Your task to perform on an android device: turn off location history Image 0: 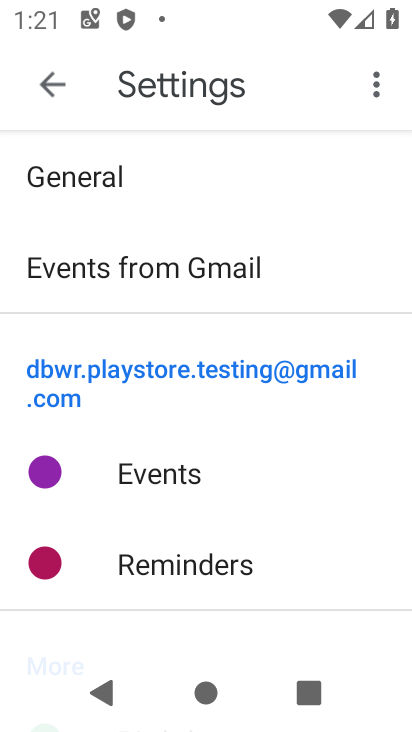
Step 0: press home button
Your task to perform on an android device: turn off location history Image 1: 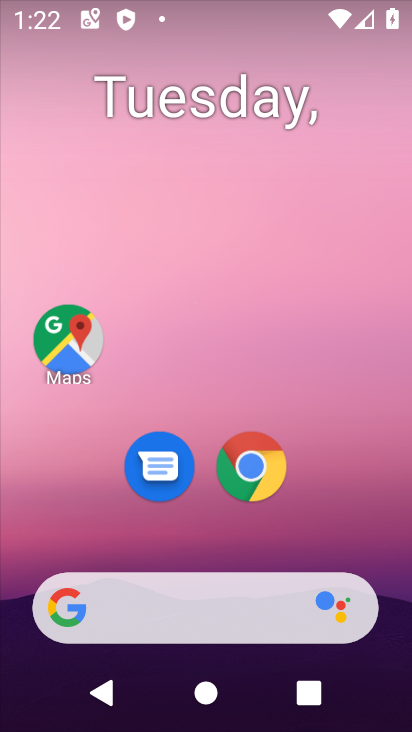
Step 1: click (93, 334)
Your task to perform on an android device: turn off location history Image 2: 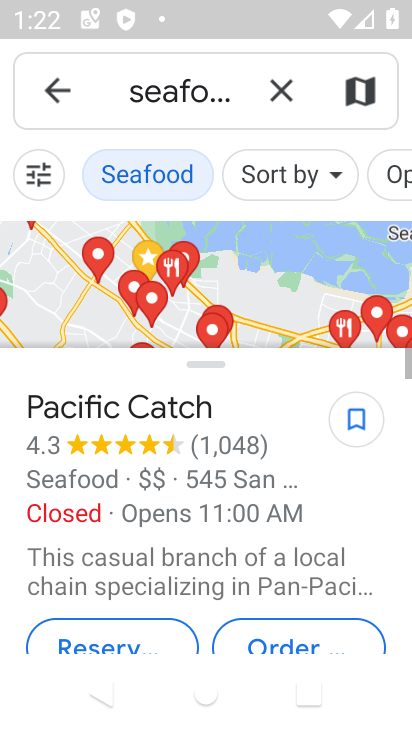
Step 2: click (34, 114)
Your task to perform on an android device: turn off location history Image 3: 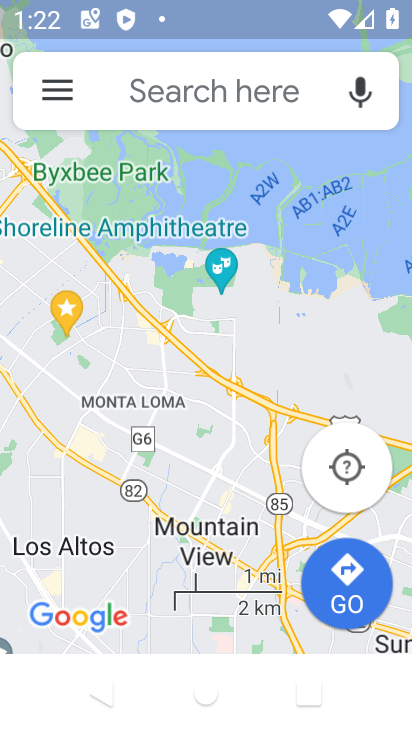
Step 3: click (35, 99)
Your task to perform on an android device: turn off location history Image 4: 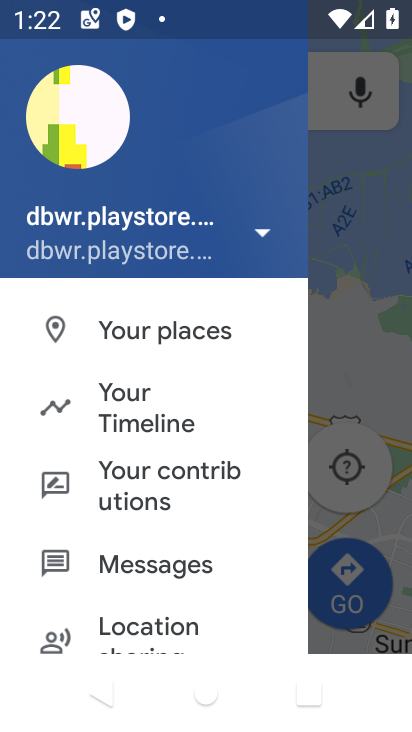
Step 4: drag from (191, 553) to (93, 234)
Your task to perform on an android device: turn off location history Image 5: 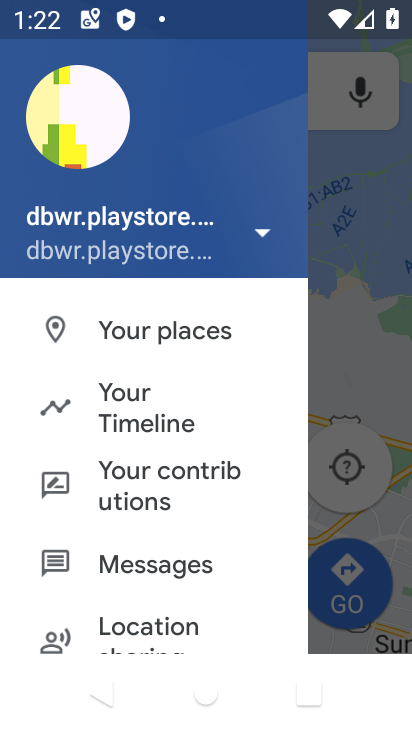
Step 5: drag from (128, 605) to (134, 327)
Your task to perform on an android device: turn off location history Image 6: 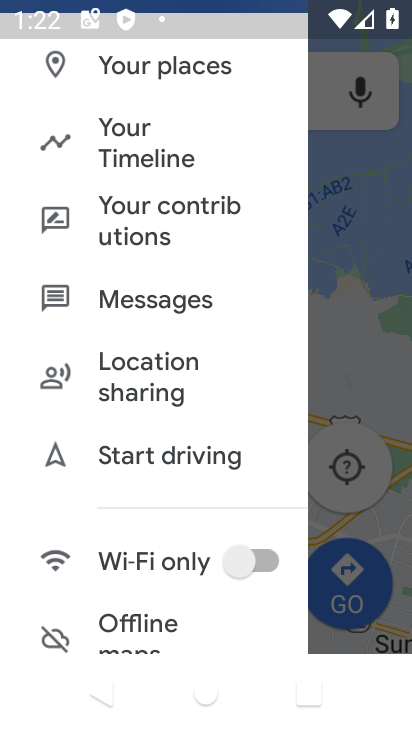
Step 6: click (120, 134)
Your task to perform on an android device: turn off location history Image 7: 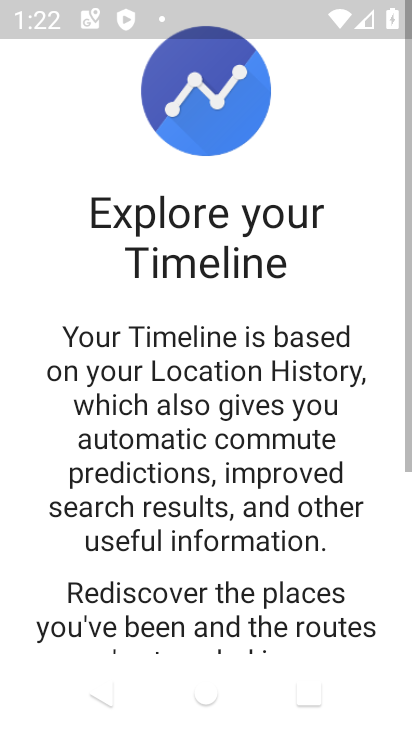
Step 7: drag from (235, 521) to (208, 35)
Your task to perform on an android device: turn off location history Image 8: 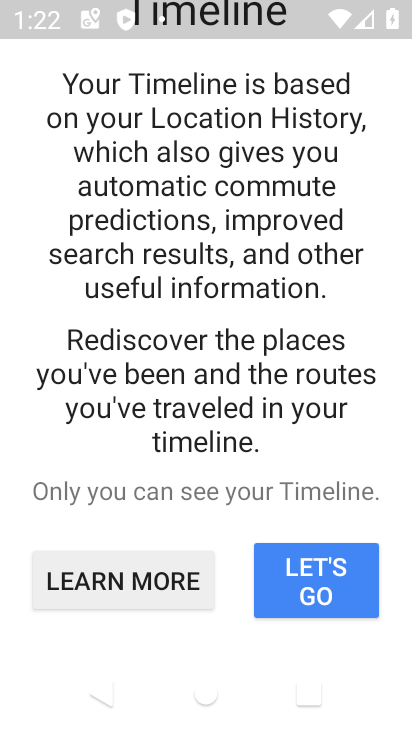
Step 8: click (320, 575)
Your task to perform on an android device: turn off location history Image 9: 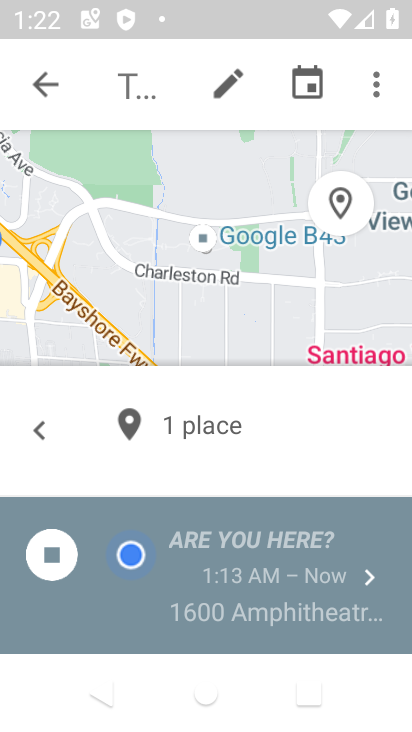
Step 9: click (372, 80)
Your task to perform on an android device: turn off location history Image 10: 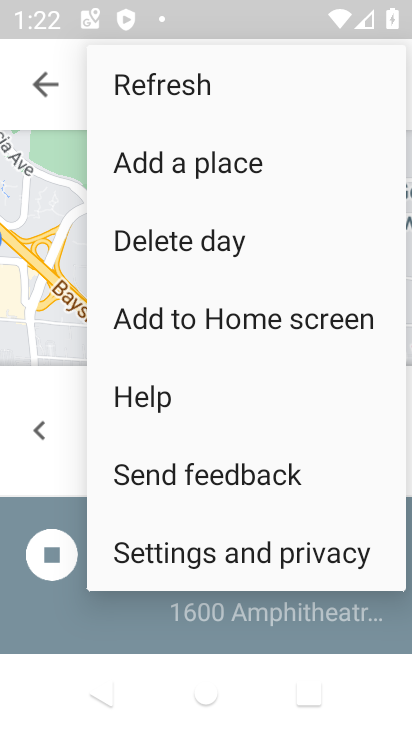
Step 10: click (165, 553)
Your task to perform on an android device: turn off location history Image 11: 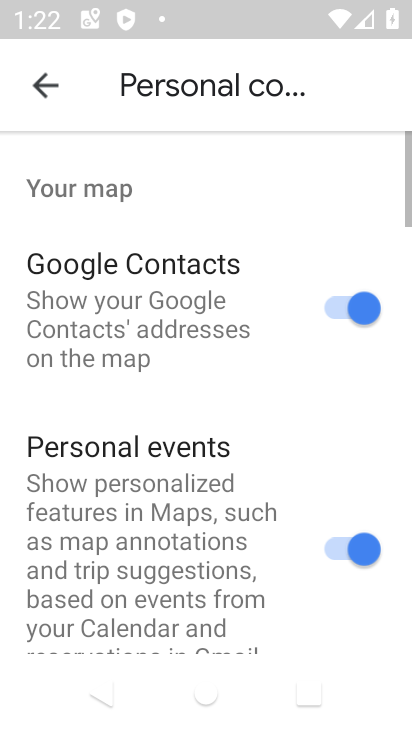
Step 11: drag from (167, 562) to (203, 241)
Your task to perform on an android device: turn off location history Image 12: 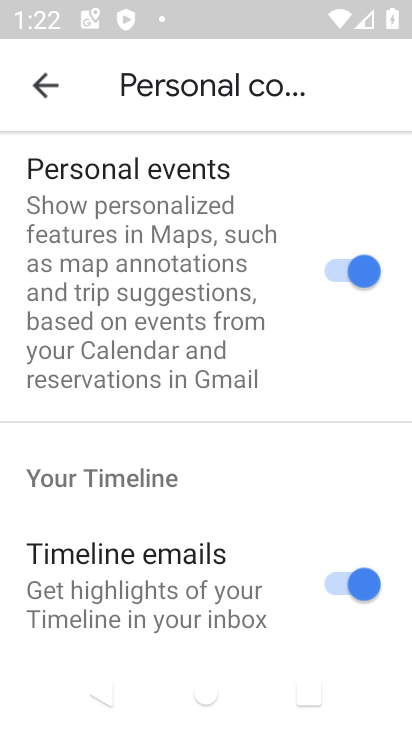
Step 12: drag from (152, 542) to (201, 246)
Your task to perform on an android device: turn off location history Image 13: 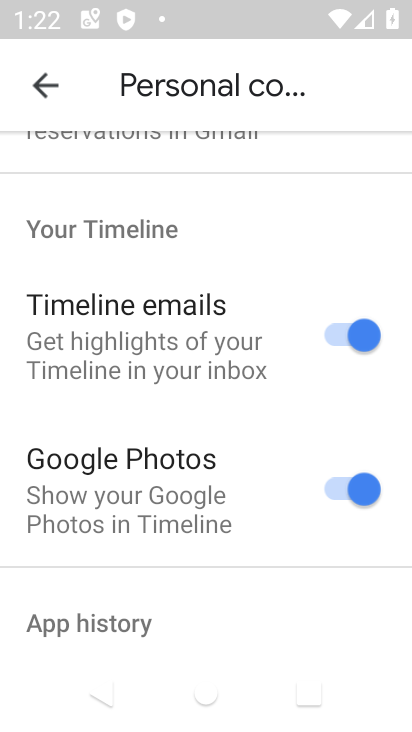
Step 13: drag from (161, 577) to (197, 306)
Your task to perform on an android device: turn off location history Image 14: 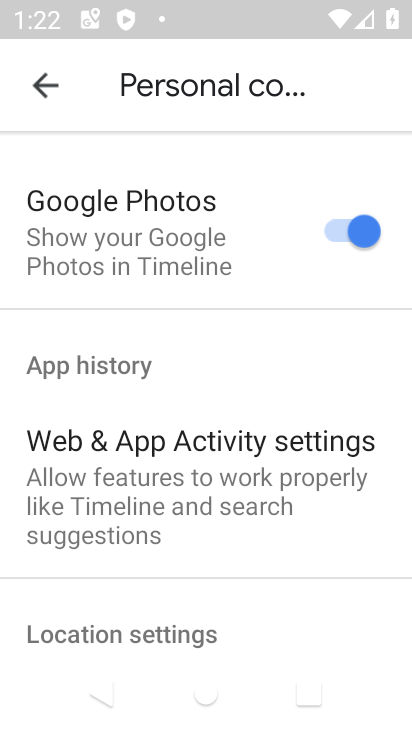
Step 14: drag from (119, 608) to (266, 250)
Your task to perform on an android device: turn off location history Image 15: 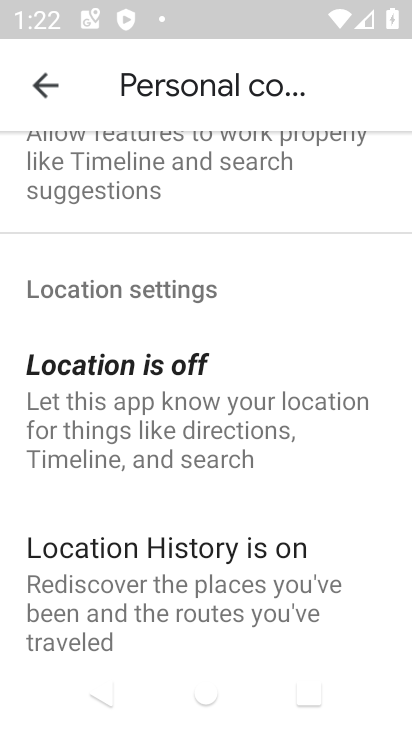
Step 15: click (86, 412)
Your task to perform on an android device: turn off location history Image 16: 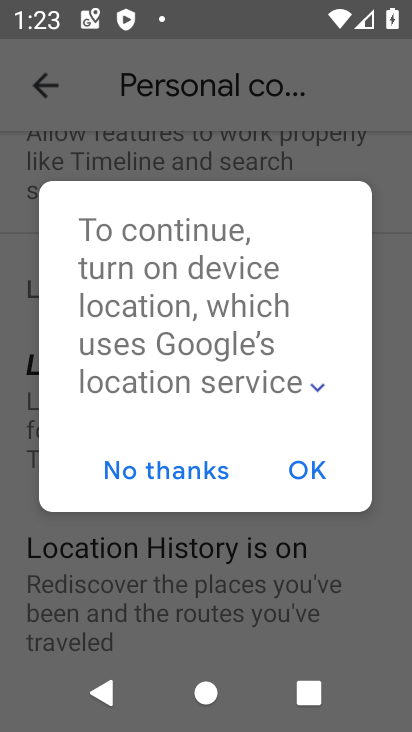
Step 16: click (307, 466)
Your task to perform on an android device: turn off location history Image 17: 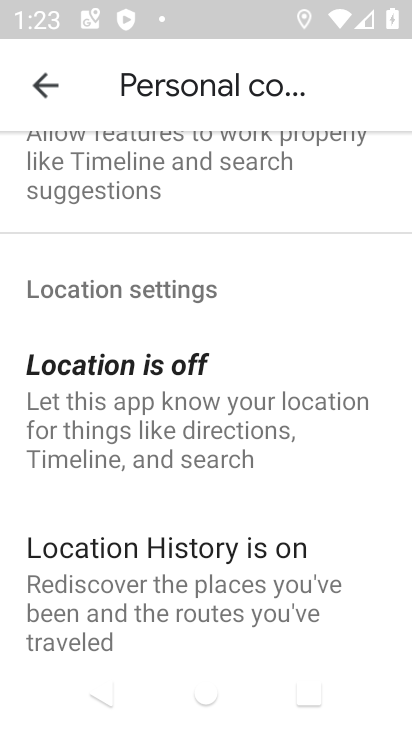
Step 17: click (180, 357)
Your task to perform on an android device: turn off location history Image 18: 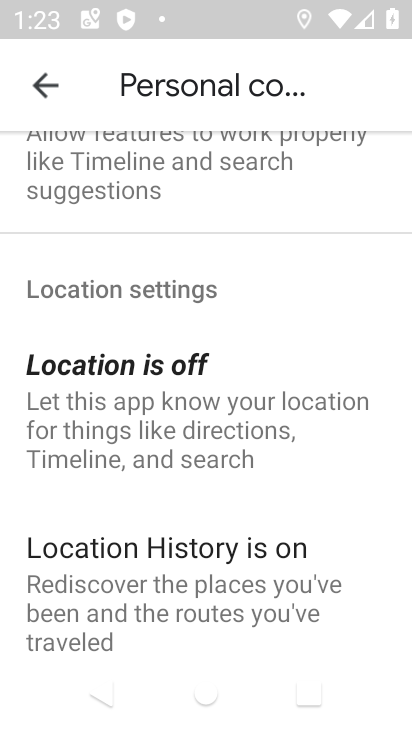
Step 18: click (180, 357)
Your task to perform on an android device: turn off location history Image 19: 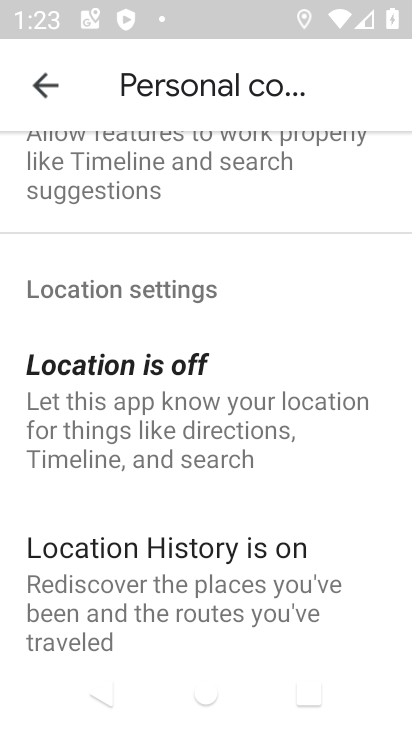
Step 19: click (170, 369)
Your task to perform on an android device: turn off location history Image 20: 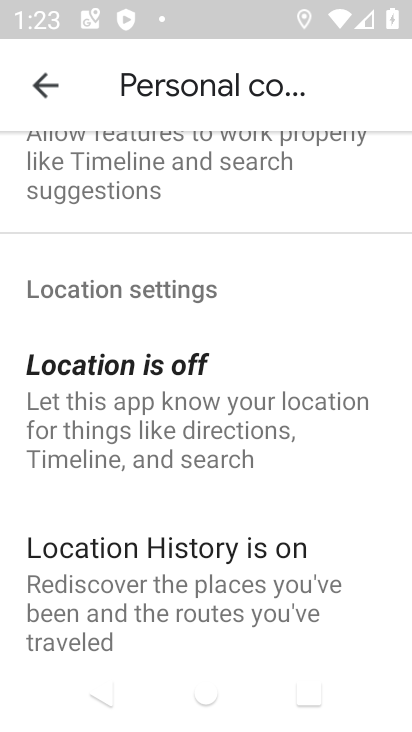
Step 20: task complete